Your task to perform on an android device: turn on the 12-hour format for clock Image 0: 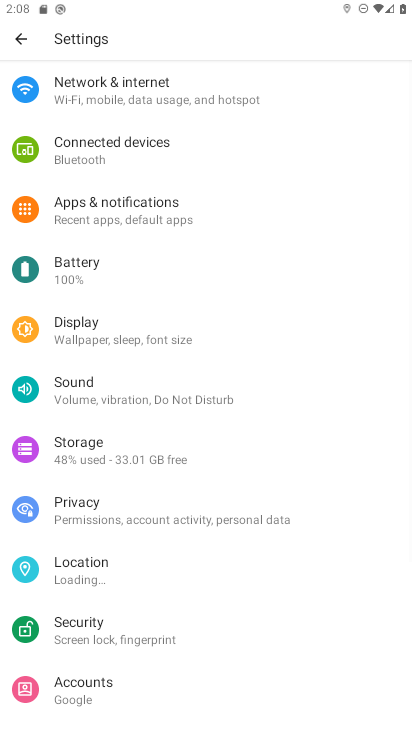
Step 0: press home button
Your task to perform on an android device: turn on the 12-hour format for clock Image 1: 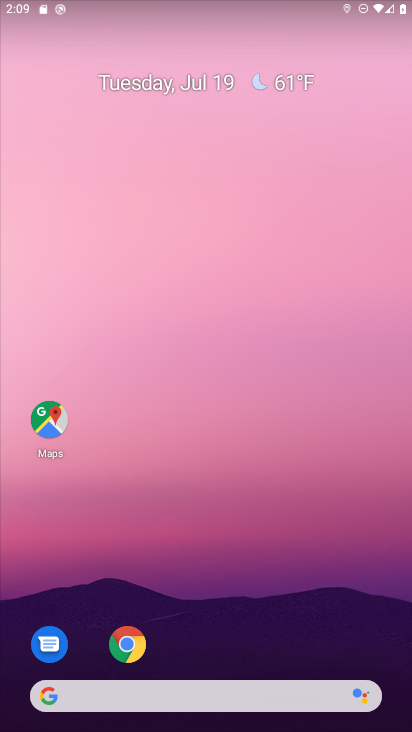
Step 1: drag from (226, 669) to (193, 118)
Your task to perform on an android device: turn on the 12-hour format for clock Image 2: 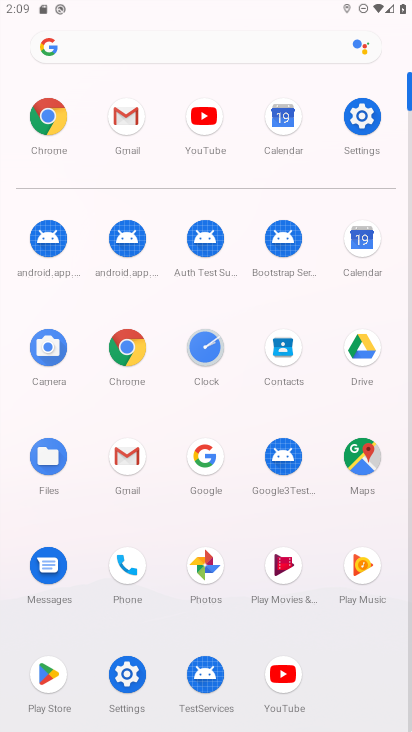
Step 2: click (204, 347)
Your task to perform on an android device: turn on the 12-hour format for clock Image 3: 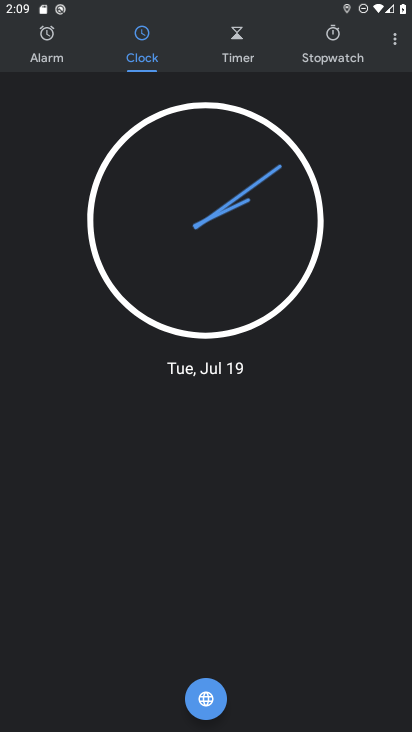
Step 3: click (398, 35)
Your task to perform on an android device: turn on the 12-hour format for clock Image 4: 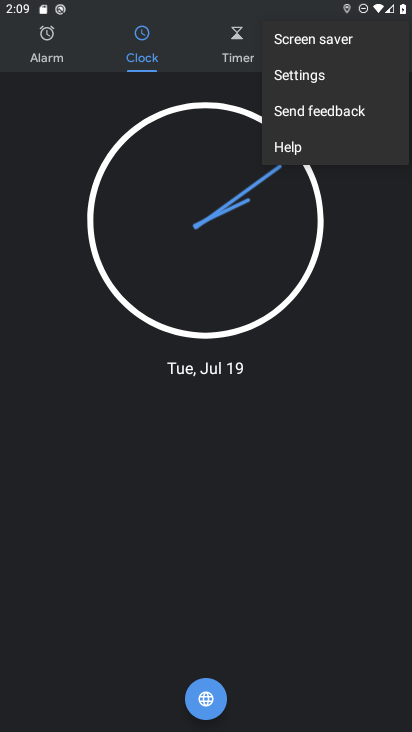
Step 4: click (317, 72)
Your task to perform on an android device: turn on the 12-hour format for clock Image 5: 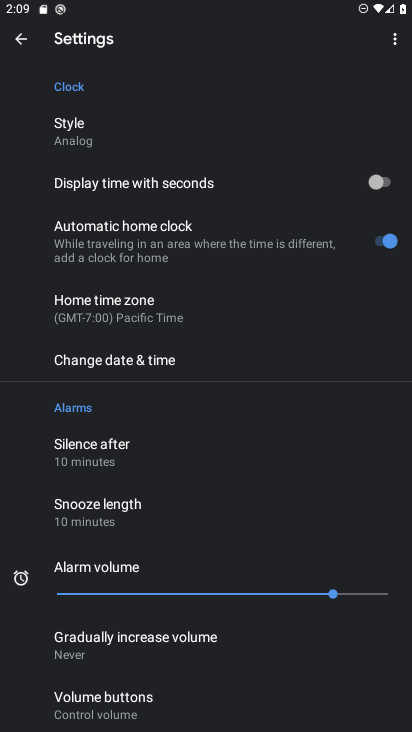
Step 5: click (123, 371)
Your task to perform on an android device: turn on the 12-hour format for clock Image 6: 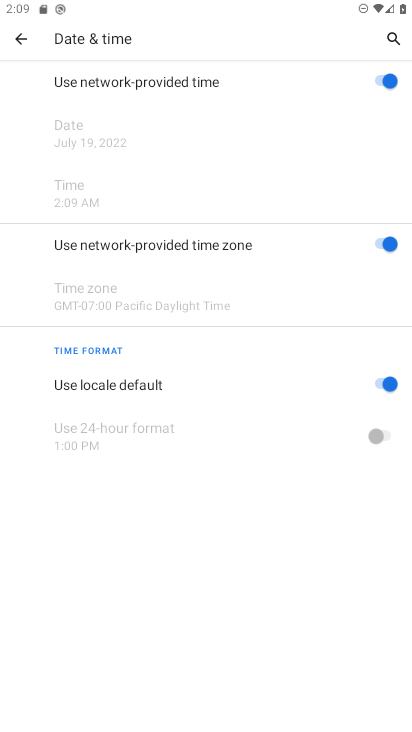
Step 6: task complete